Your task to perform on an android device: open the mobile data screen to see how much data has been used Image 0: 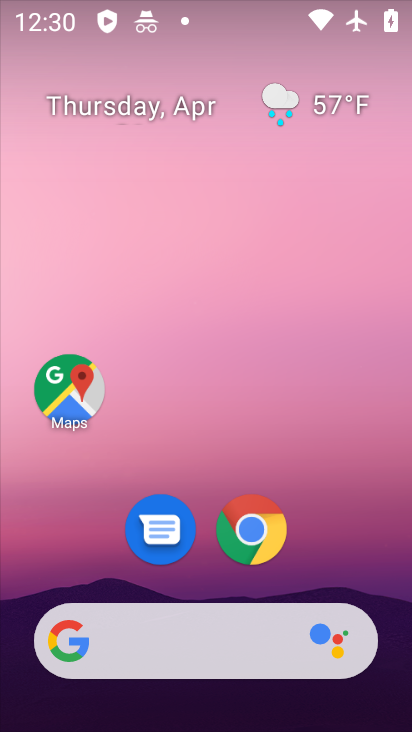
Step 0: drag from (254, 570) to (246, 165)
Your task to perform on an android device: open the mobile data screen to see how much data has been used Image 1: 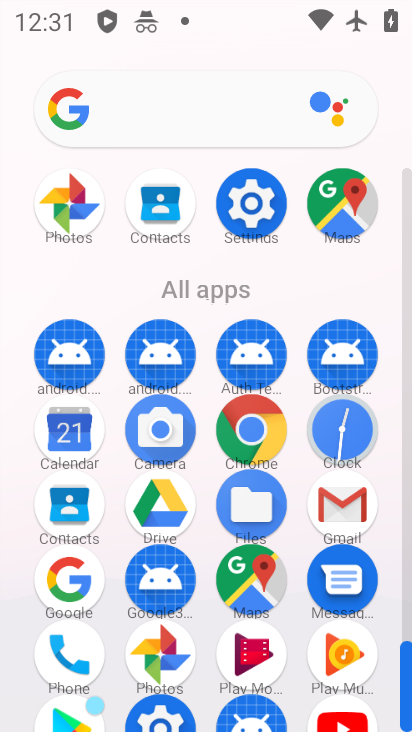
Step 1: click (259, 209)
Your task to perform on an android device: open the mobile data screen to see how much data has been used Image 2: 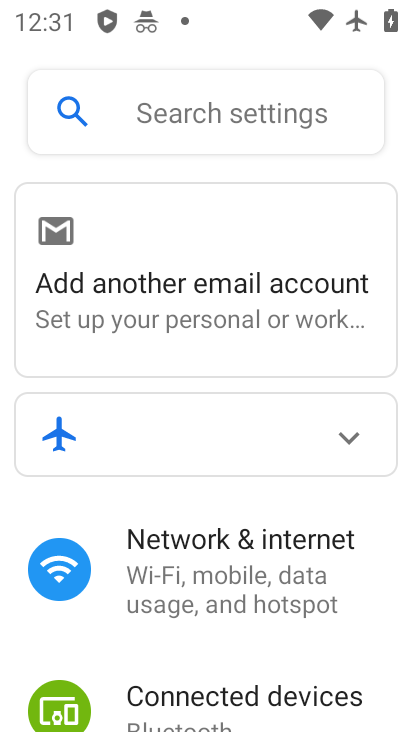
Step 2: click (200, 618)
Your task to perform on an android device: open the mobile data screen to see how much data has been used Image 3: 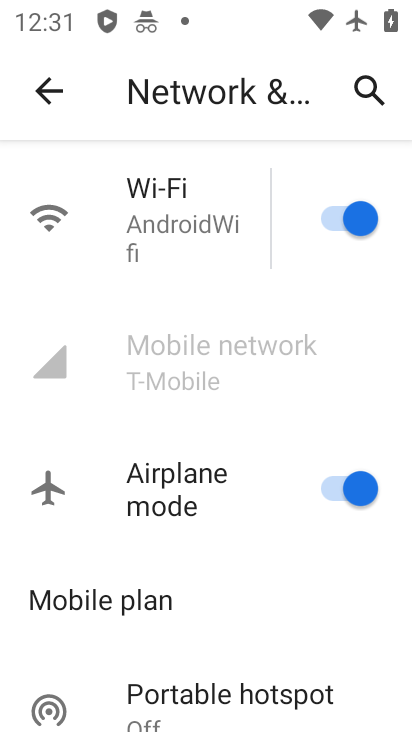
Step 3: task complete